Your task to perform on an android device: change notification settings in the gmail app Image 0: 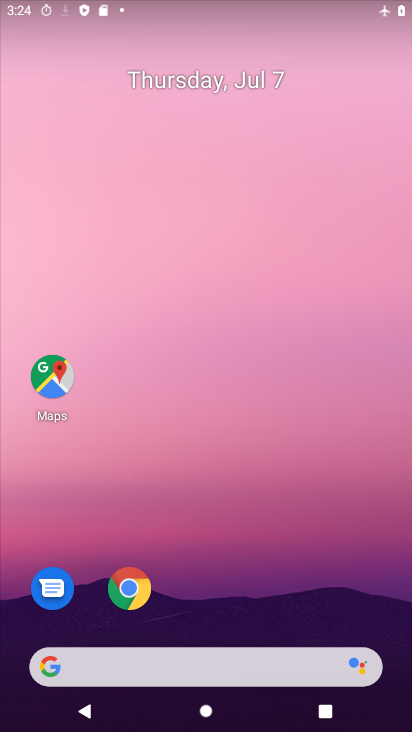
Step 0: drag from (270, 691) to (290, 231)
Your task to perform on an android device: change notification settings in the gmail app Image 1: 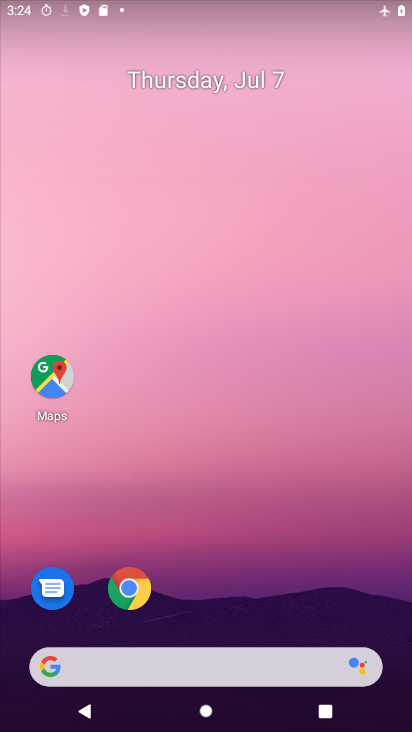
Step 1: drag from (317, 700) to (304, 301)
Your task to perform on an android device: change notification settings in the gmail app Image 2: 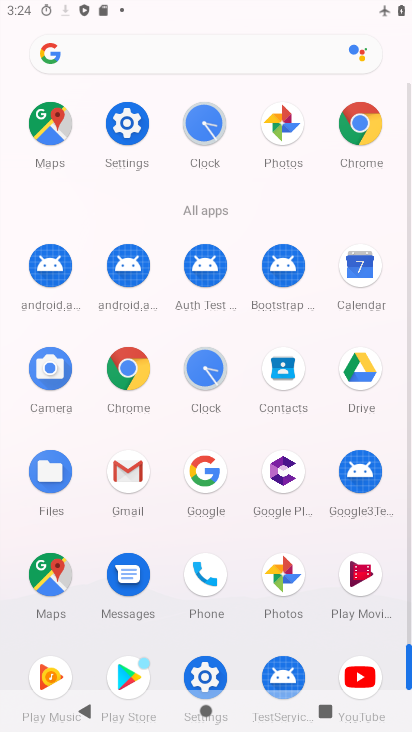
Step 2: click (118, 456)
Your task to perform on an android device: change notification settings in the gmail app Image 3: 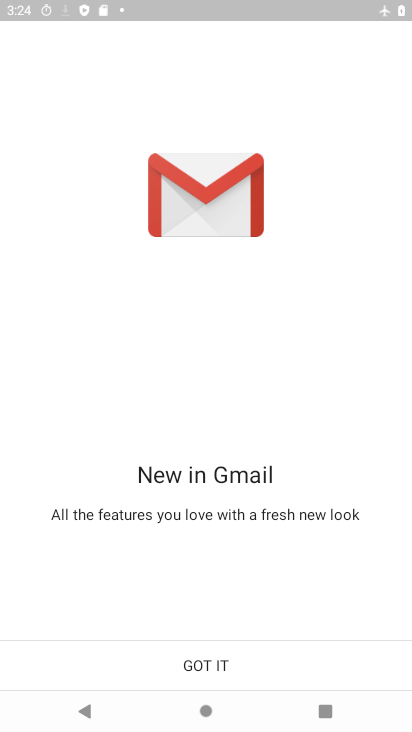
Step 3: click (213, 656)
Your task to perform on an android device: change notification settings in the gmail app Image 4: 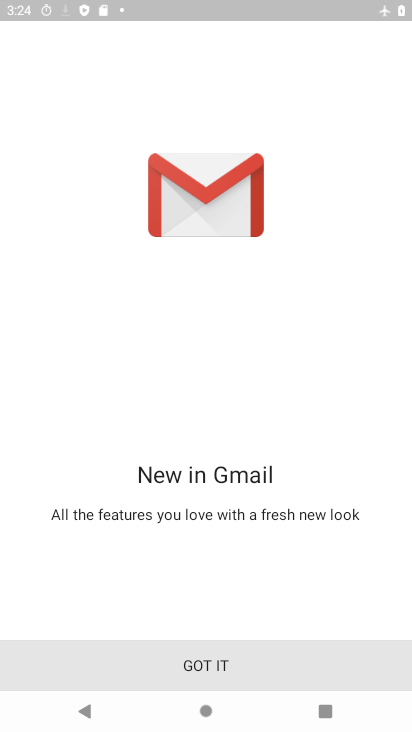
Step 4: click (211, 656)
Your task to perform on an android device: change notification settings in the gmail app Image 5: 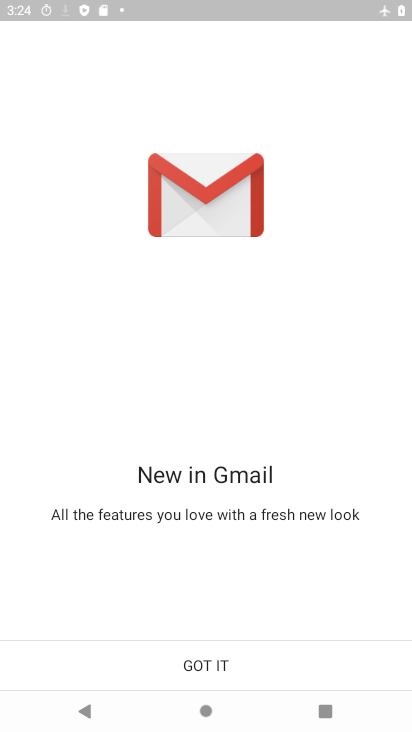
Step 5: click (208, 657)
Your task to perform on an android device: change notification settings in the gmail app Image 6: 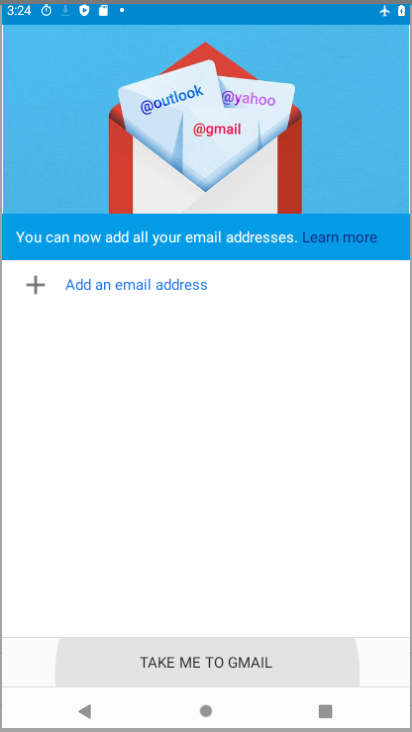
Step 6: click (203, 661)
Your task to perform on an android device: change notification settings in the gmail app Image 7: 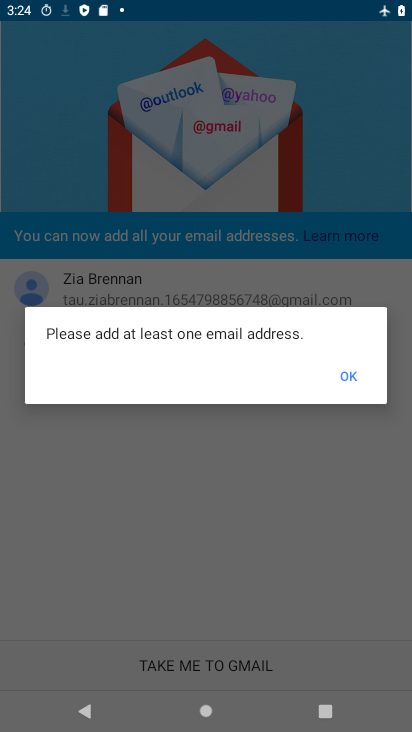
Step 7: click (241, 671)
Your task to perform on an android device: change notification settings in the gmail app Image 8: 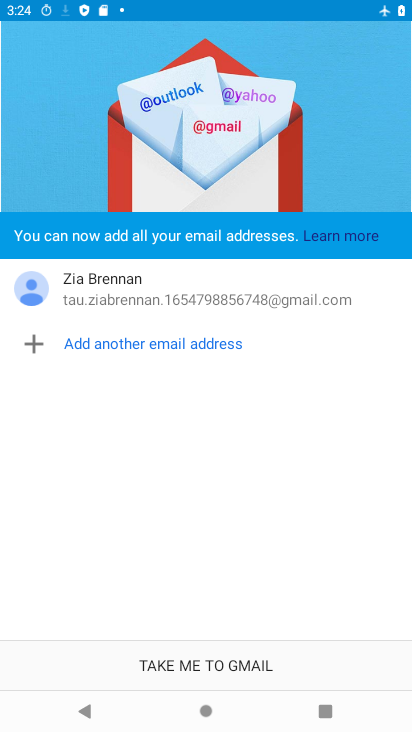
Step 8: click (240, 671)
Your task to perform on an android device: change notification settings in the gmail app Image 9: 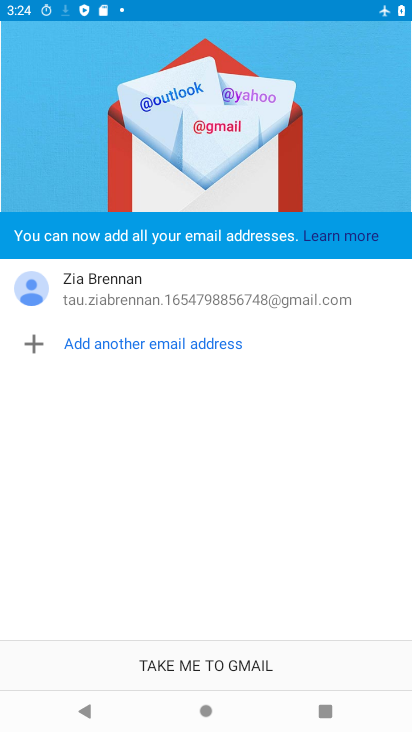
Step 9: click (236, 653)
Your task to perform on an android device: change notification settings in the gmail app Image 10: 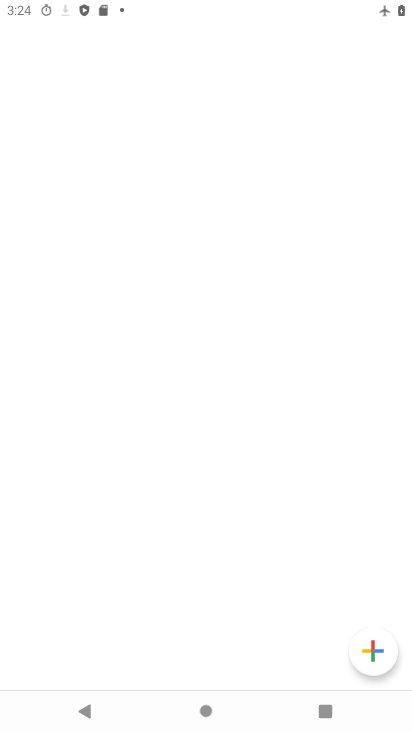
Step 10: click (235, 657)
Your task to perform on an android device: change notification settings in the gmail app Image 11: 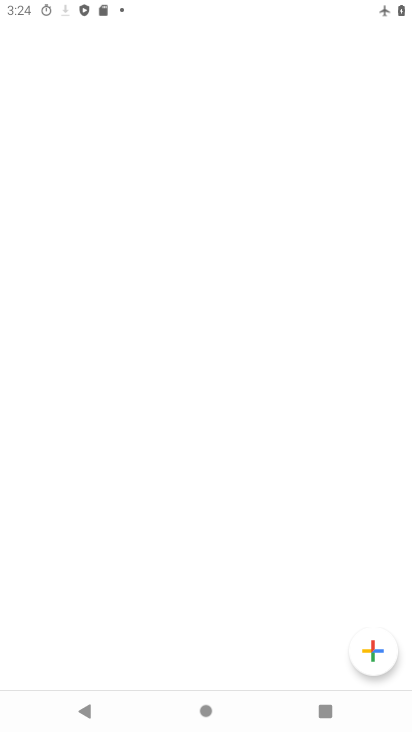
Step 11: click (233, 657)
Your task to perform on an android device: change notification settings in the gmail app Image 12: 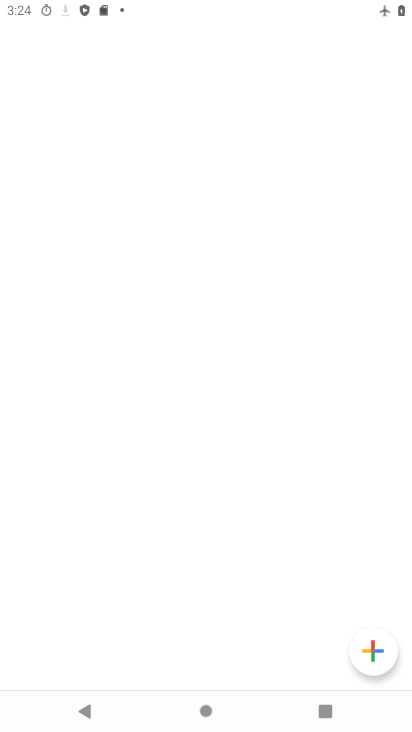
Step 12: click (230, 657)
Your task to perform on an android device: change notification settings in the gmail app Image 13: 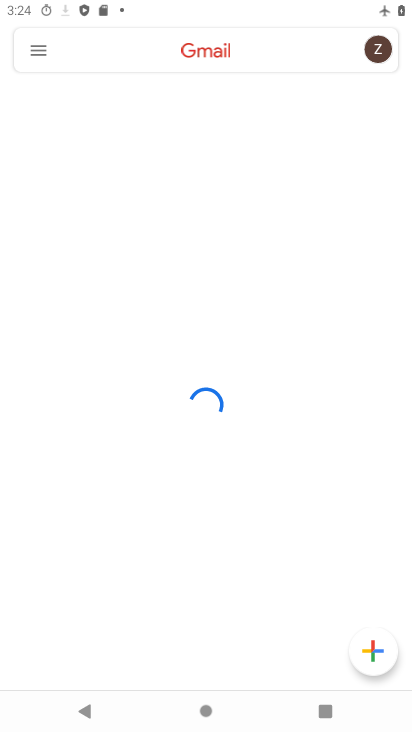
Step 13: click (38, 60)
Your task to perform on an android device: change notification settings in the gmail app Image 14: 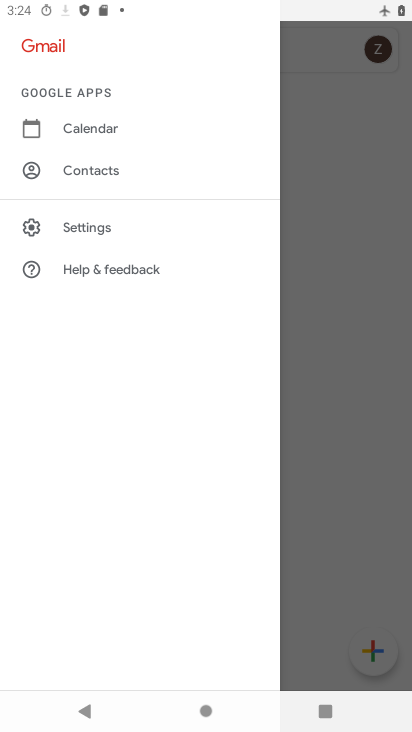
Step 14: click (108, 235)
Your task to perform on an android device: change notification settings in the gmail app Image 15: 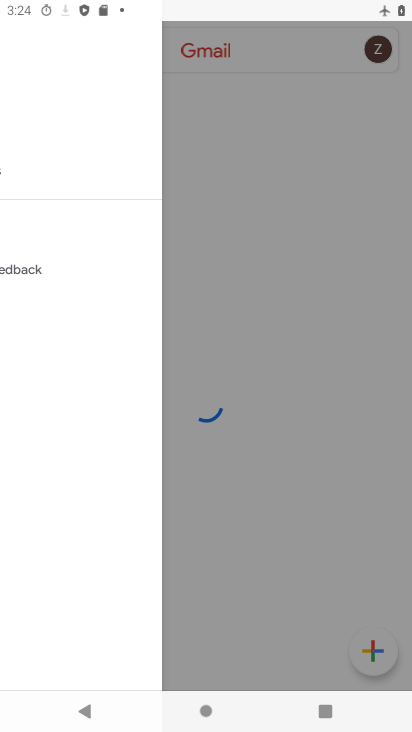
Step 15: click (109, 235)
Your task to perform on an android device: change notification settings in the gmail app Image 16: 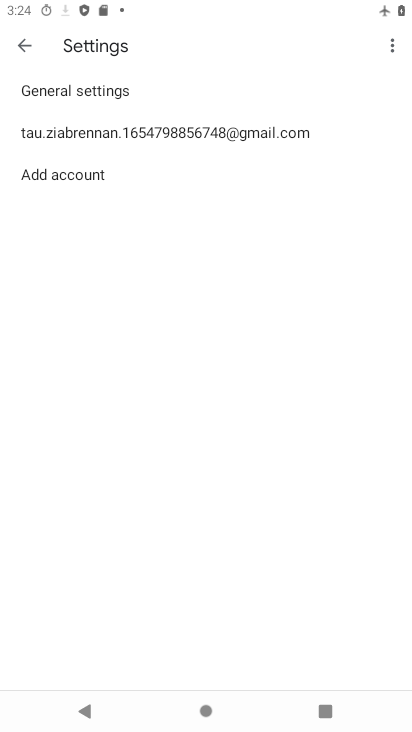
Step 16: click (122, 135)
Your task to perform on an android device: change notification settings in the gmail app Image 17: 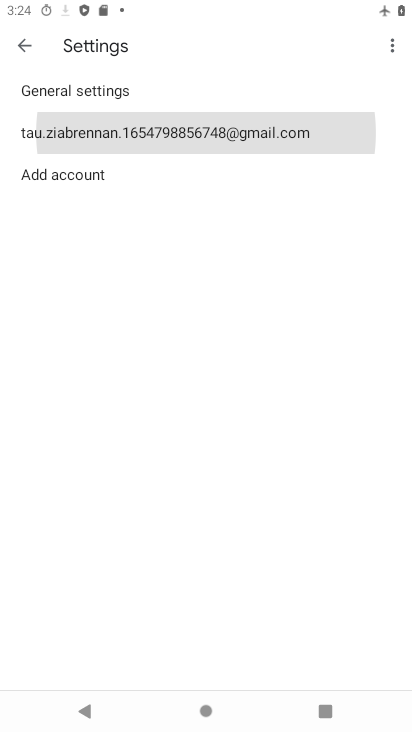
Step 17: click (122, 135)
Your task to perform on an android device: change notification settings in the gmail app Image 18: 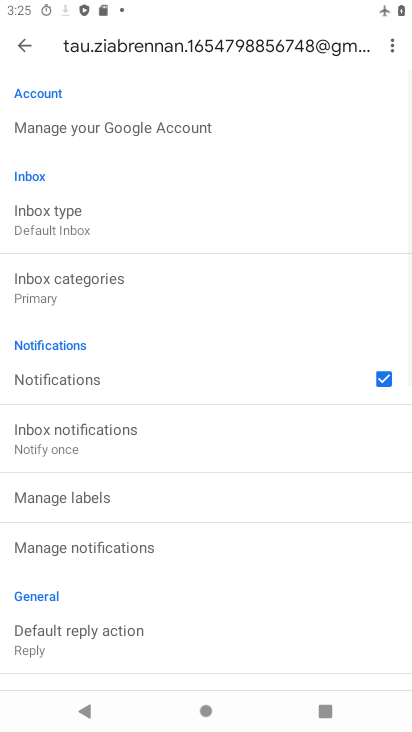
Step 18: click (90, 378)
Your task to perform on an android device: change notification settings in the gmail app Image 19: 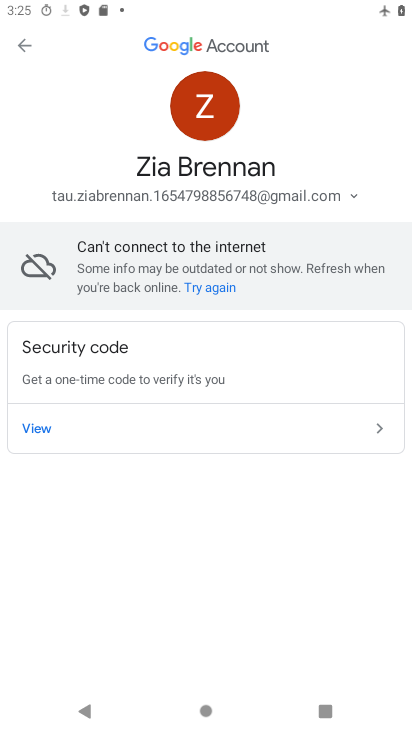
Step 19: task complete